Your task to perform on an android device: turn off data saver in the chrome app Image 0: 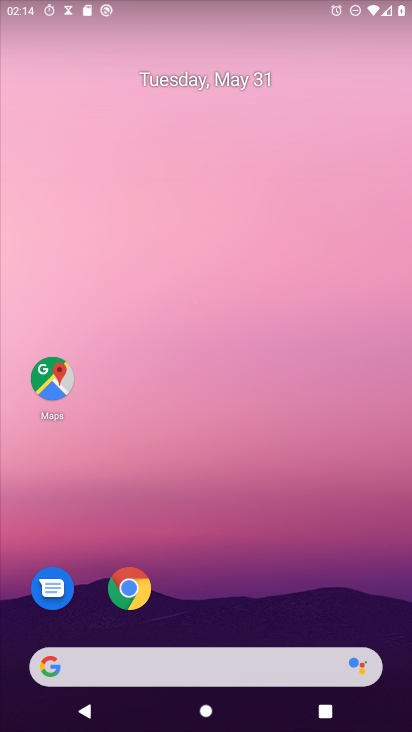
Step 0: drag from (341, 663) to (326, 2)
Your task to perform on an android device: turn off data saver in the chrome app Image 1: 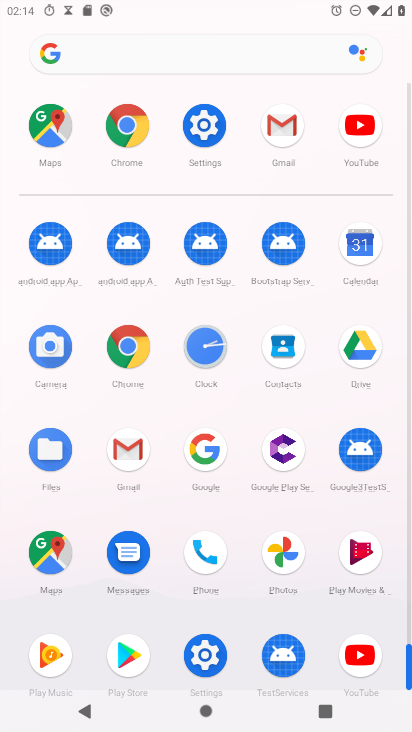
Step 1: click (119, 341)
Your task to perform on an android device: turn off data saver in the chrome app Image 2: 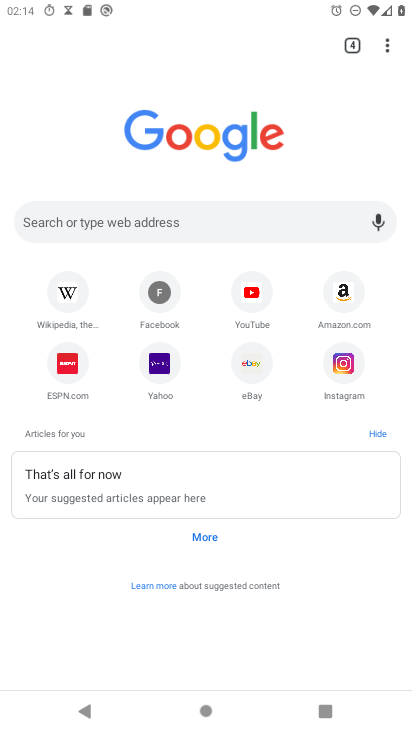
Step 2: click (380, 35)
Your task to perform on an android device: turn off data saver in the chrome app Image 3: 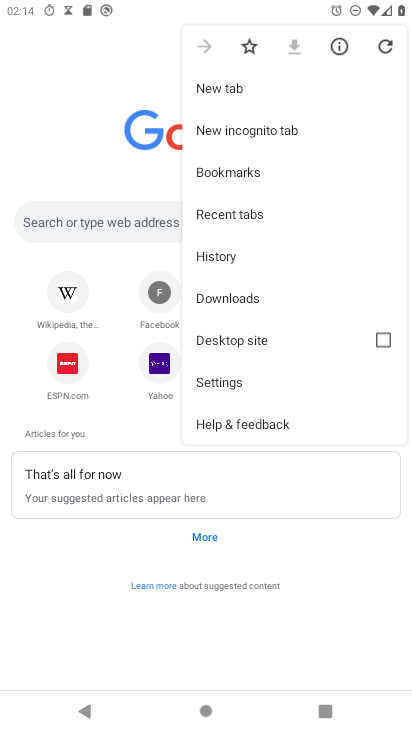
Step 3: click (269, 389)
Your task to perform on an android device: turn off data saver in the chrome app Image 4: 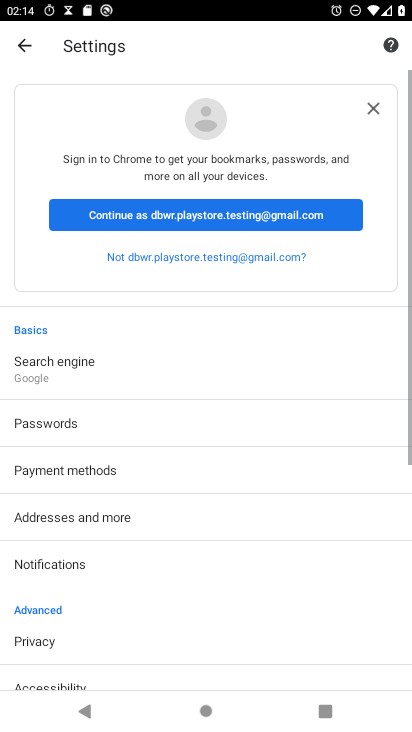
Step 4: drag from (221, 659) to (175, 327)
Your task to perform on an android device: turn off data saver in the chrome app Image 5: 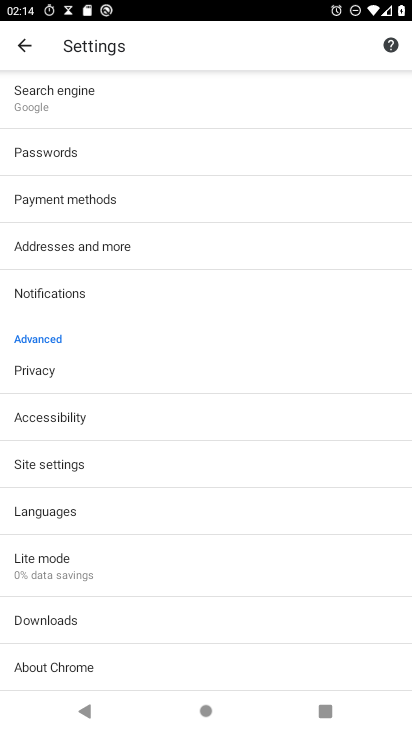
Step 5: click (87, 568)
Your task to perform on an android device: turn off data saver in the chrome app Image 6: 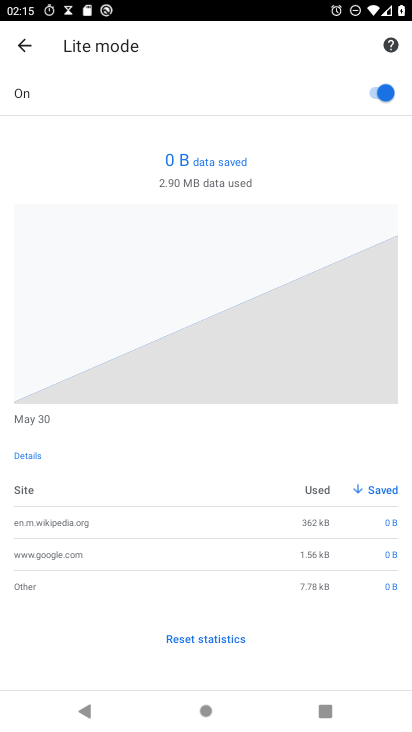
Step 6: task complete